Your task to perform on an android device: Open battery settings Image 0: 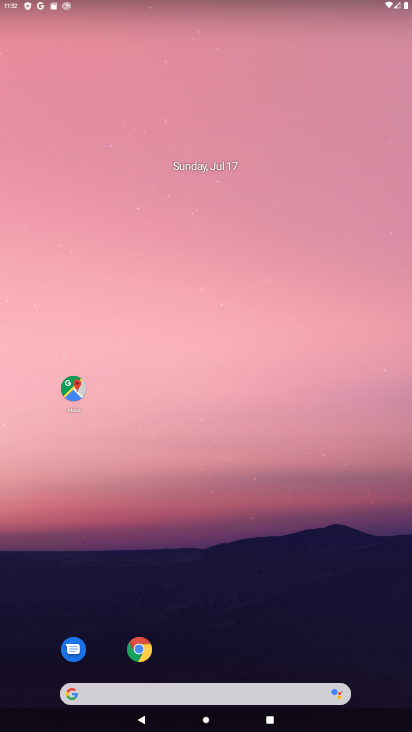
Step 0: task complete